Your task to perform on an android device: turn notification dots on Image 0: 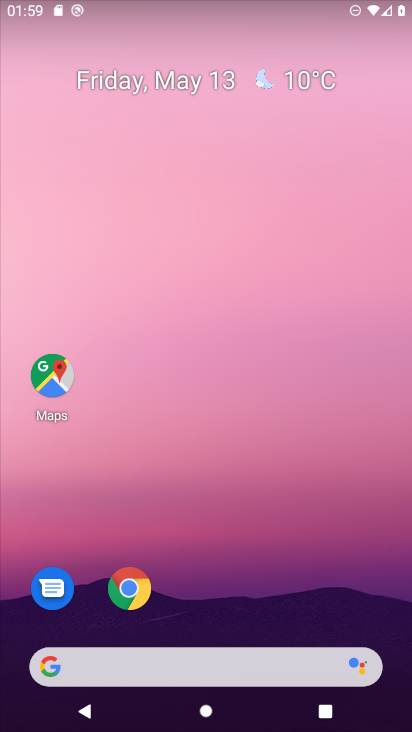
Step 0: drag from (308, 566) to (356, 99)
Your task to perform on an android device: turn notification dots on Image 1: 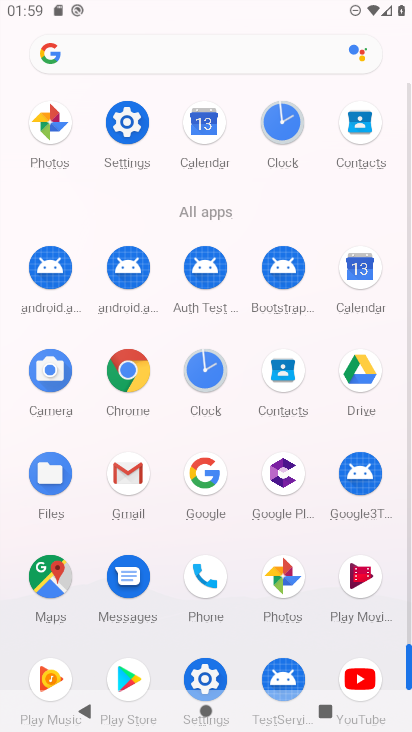
Step 1: click (119, 115)
Your task to perform on an android device: turn notification dots on Image 2: 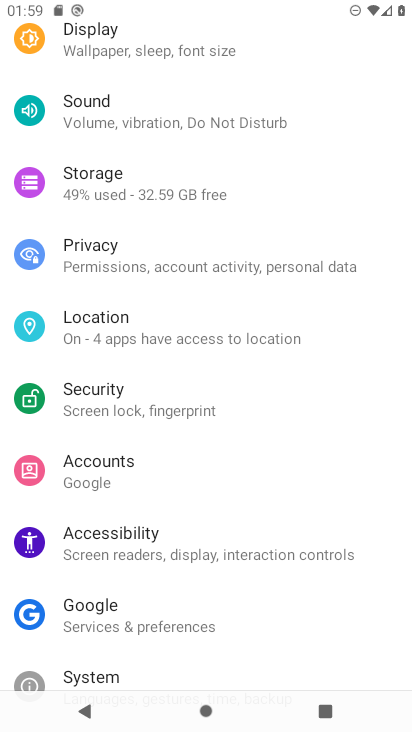
Step 2: drag from (292, 40) to (243, 286)
Your task to perform on an android device: turn notification dots on Image 3: 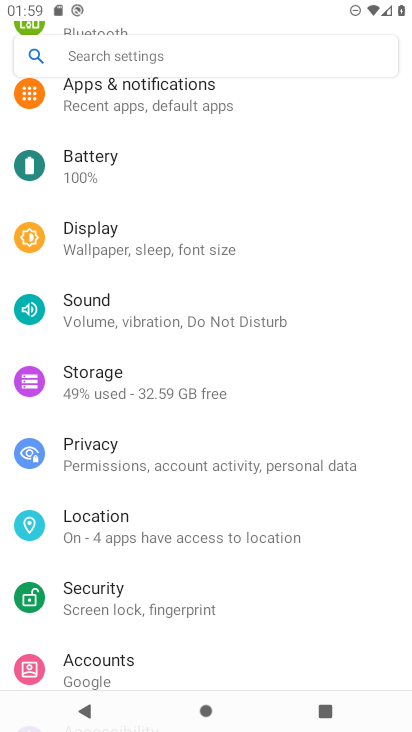
Step 3: click (160, 88)
Your task to perform on an android device: turn notification dots on Image 4: 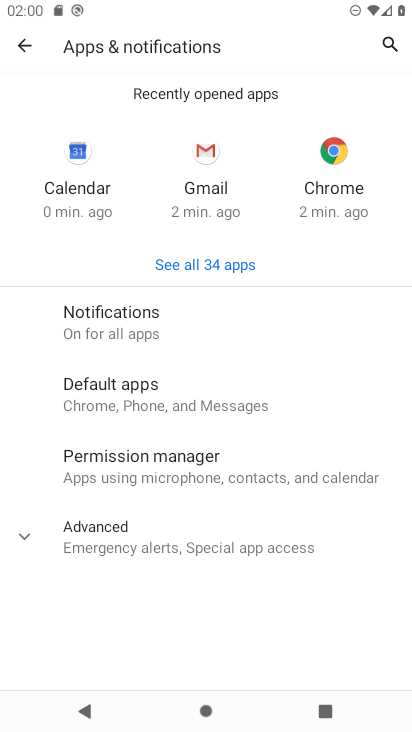
Step 4: drag from (273, 593) to (335, 392)
Your task to perform on an android device: turn notification dots on Image 5: 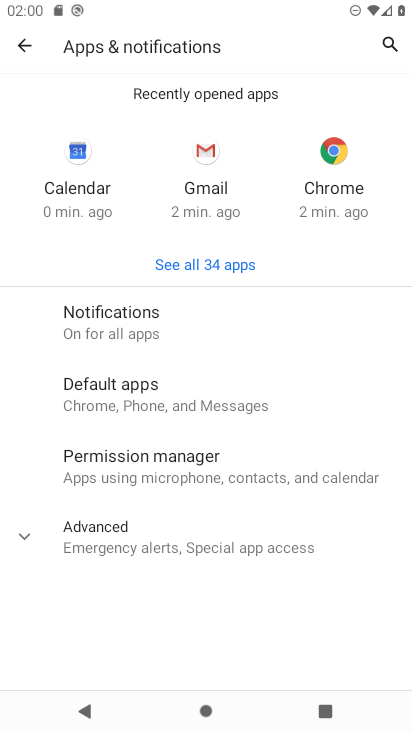
Step 5: click (92, 319)
Your task to perform on an android device: turn notification dots on Image 6: 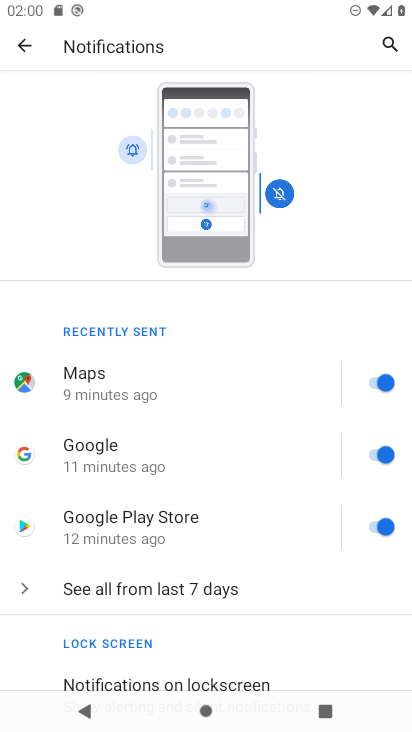
Step 6: drag from (295, 655) to (350, 185)
Your task to perform on an android device: turn notification dots on Image 7: 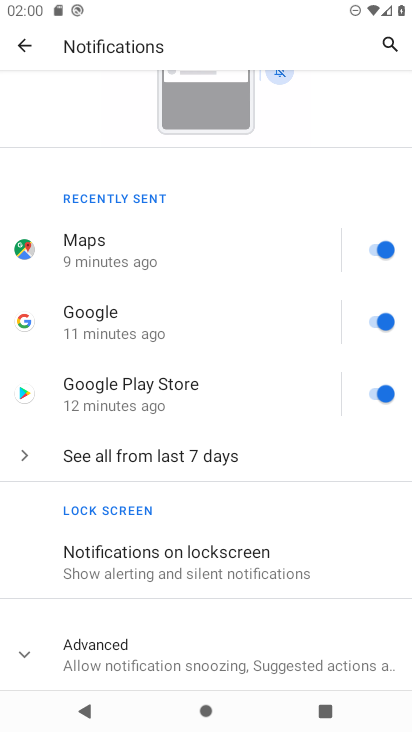
Step 7: click (115, 655)
Your task to perform on an android device: turn notification dots on Image 8: 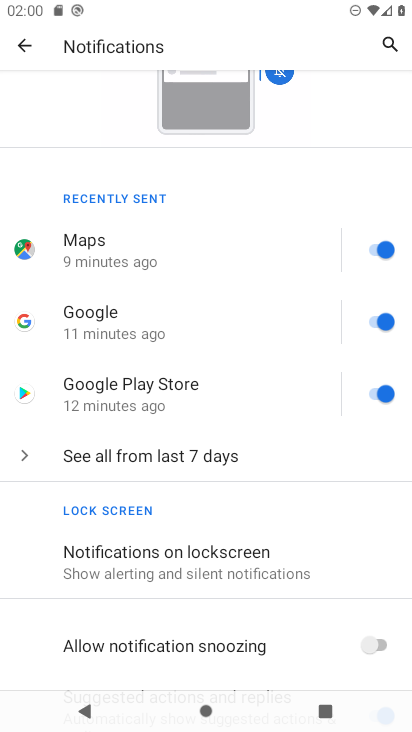
Step 8: task complete